Your task to perform on an android device: check out phone information Image 0: 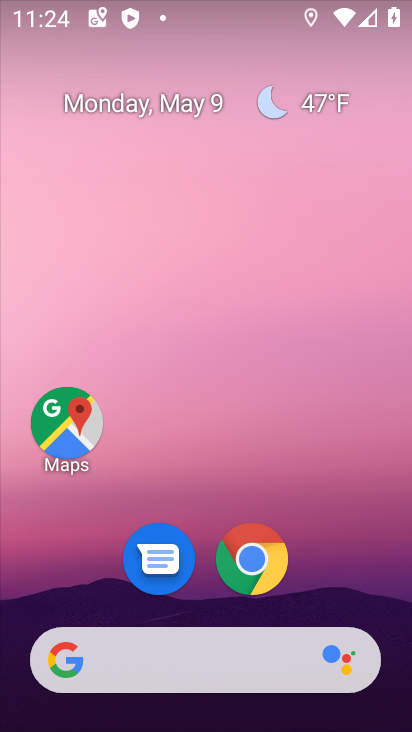
Step 0: drag from (314, 582) to (267, 5)
Your task to perform on an android device: check out phone information Image 1: 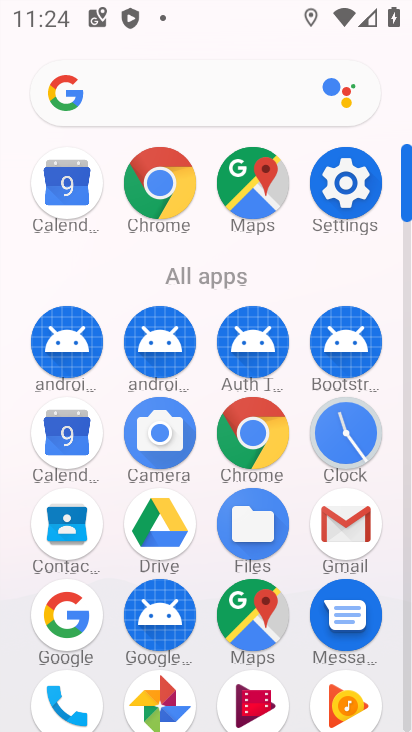
Step 1: click (68, 700)
Your task to perform on an android device: check out phone information Image 2: 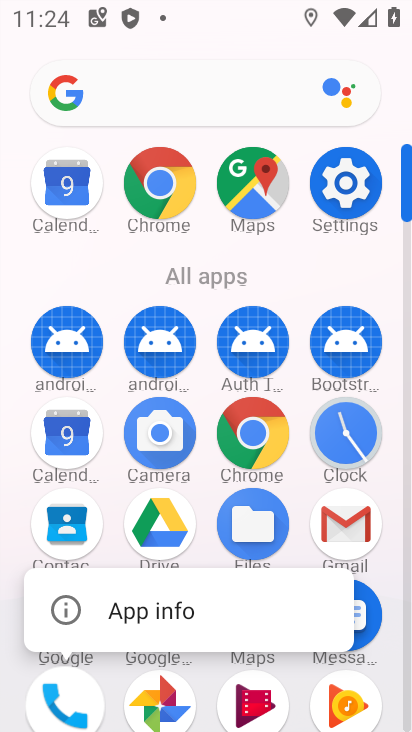
Step 2: click (190, 589)
Your task to perform on an android device: check out phone information Image 3: 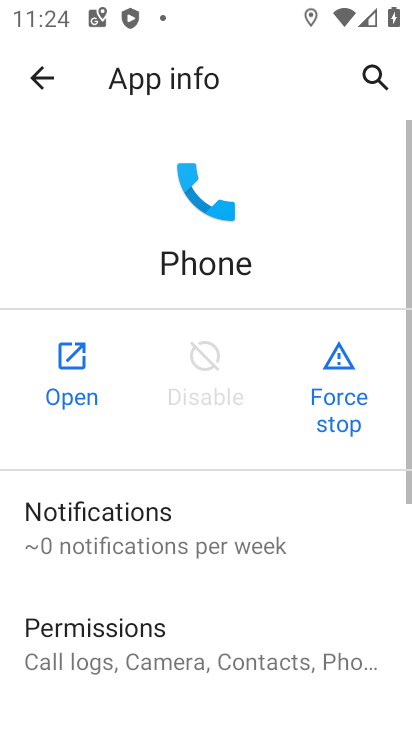
Step 3: task complete